Your task to perform on an android device: empty trash in google photos Image 0: 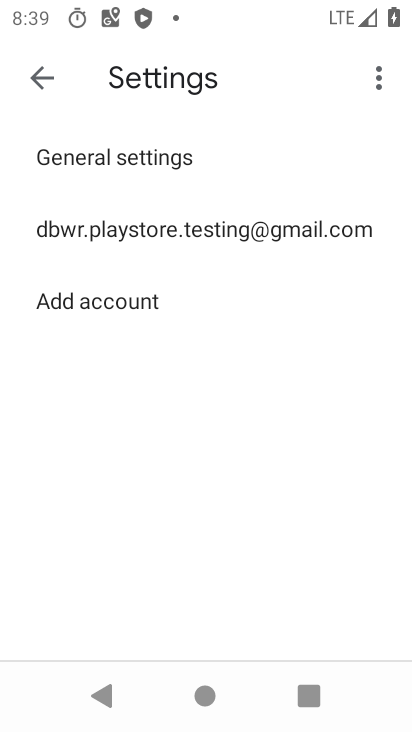
Step 0: press home button
Your task to perform on an android device: empty trash in google photos Image 1: 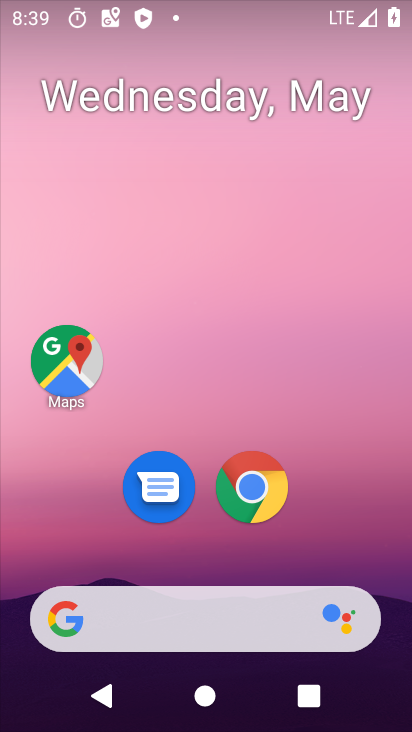
Step 1: drag from (204, 544) to (227, 185)
Your task to perform on an android device: empty trash in google photos Image 2: 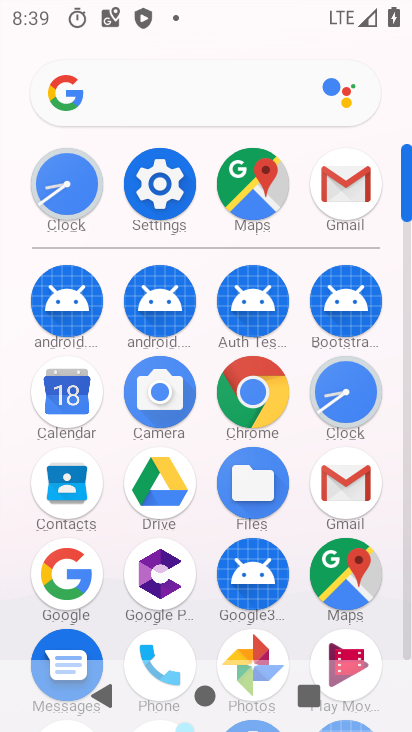
Step 2: drag from (197, 534) to (217, 363)
Your task to perform on an android device: empty trash in google photos Image 3: 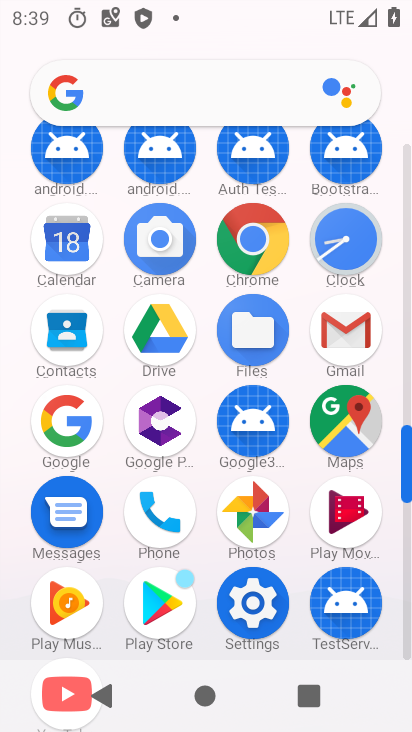
Step 3: click (255, 518)
Your task to perform on an android device: empty trash in google photos Image 4: 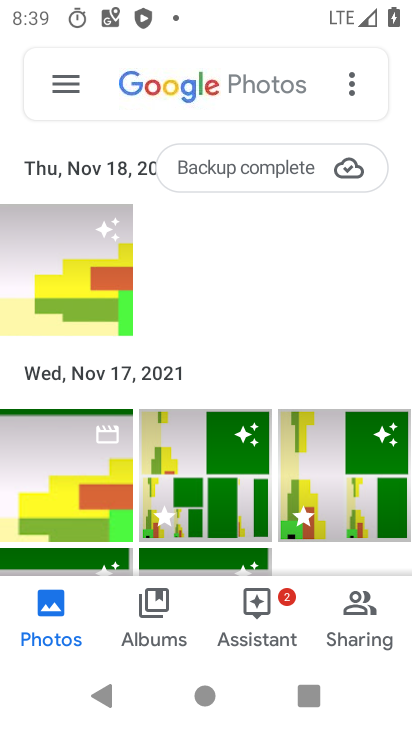
Step 4: click (62, 93)
Your task to perform on an android device: empty trash in google photos Image 5: 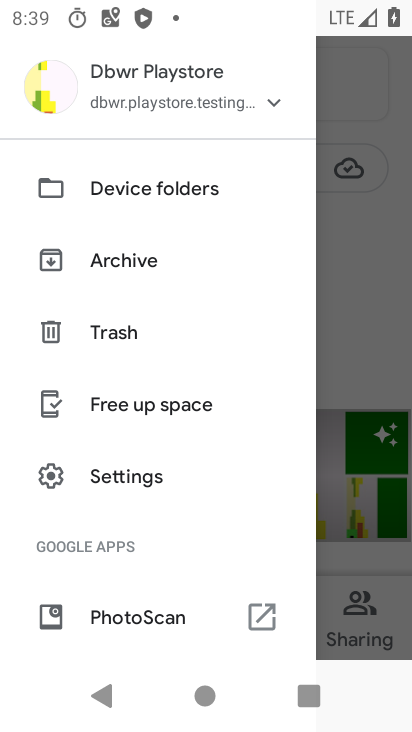
Step 5: click (142, 327)
Your task to perform on an android device: empty trash in google photos Image 6: 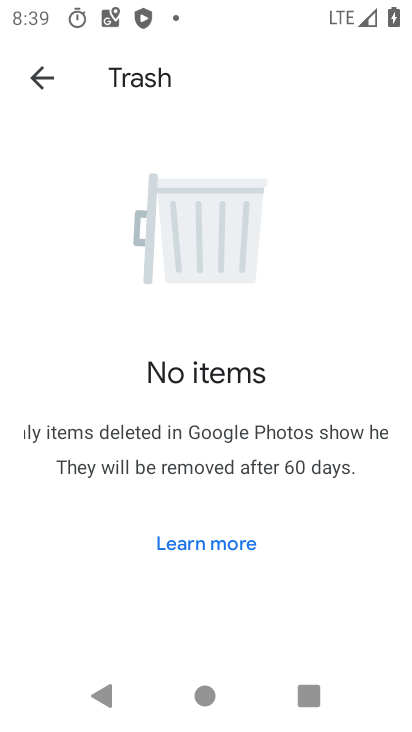
Step 6: task complete